Your task to perform on an android device: turn on priority inbox in the gmail app Image 0: 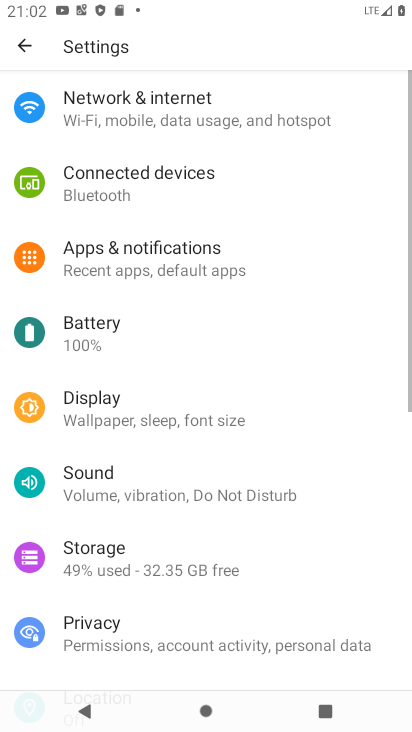
Step 0: press home button
Your task to perform on an android device: turn on priority inbox in the gmail app Image 1: 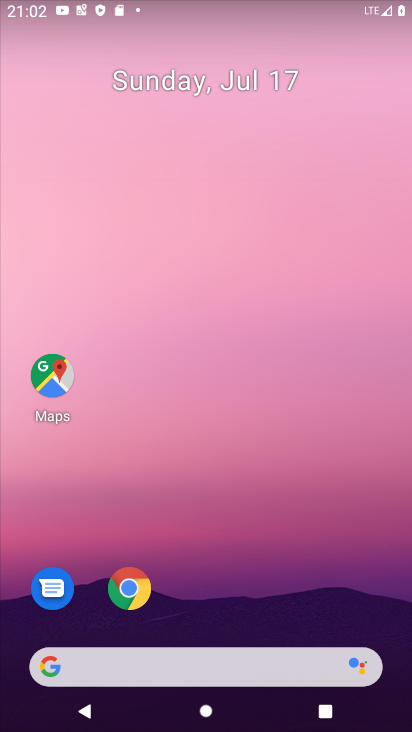
Step 1: drag from (279, 516) to (229, 18)
Your task to perform on an android device: turn on priority inbox in the gmail app Image 2: 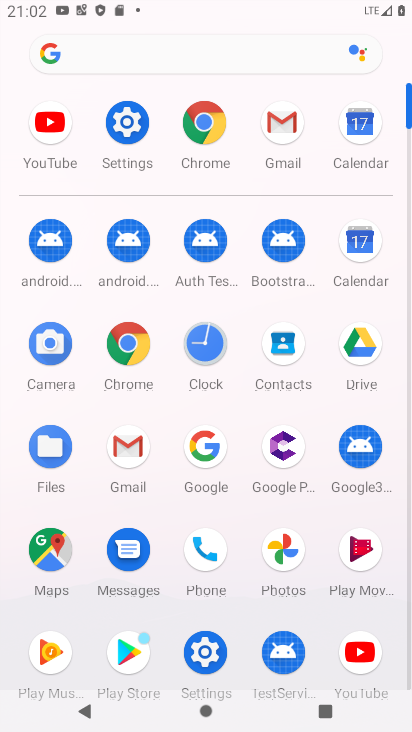
Step 2: click (274, 108)
Your task to perform on an android device: turn on priority inbox in the gmail app Image 3: 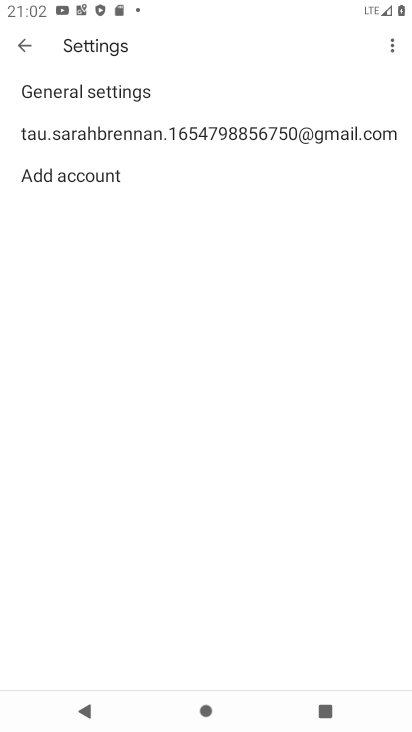
Step 3: click (19, 48)
Your task to perform on an android device: turn on priority inbox in the gmail app Image 4: 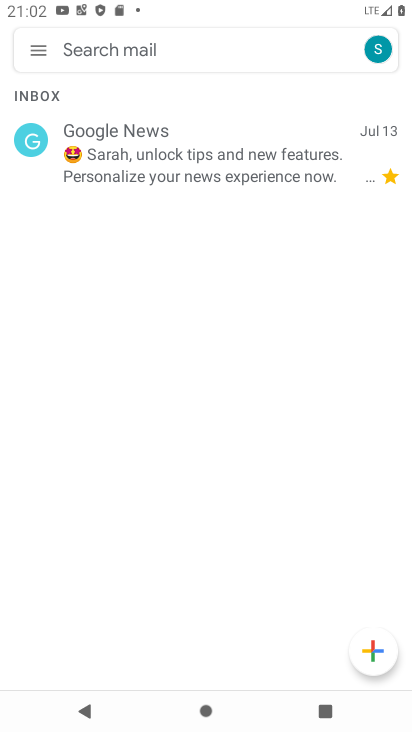
Step 4: click (40, 47)
Your task to perform on an android device: turn on priority inbox in the gmail app Image 5: 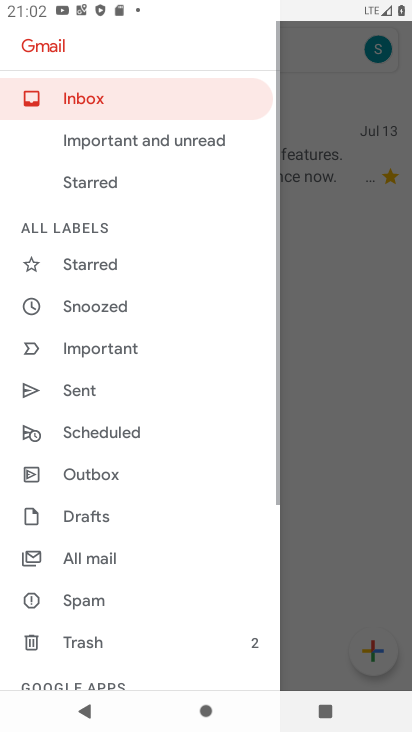
Step 5: drag from (213, 596) to (197, 128)
Your task to perform on an android device: turn on priority inbox in the gmail app Image 6: 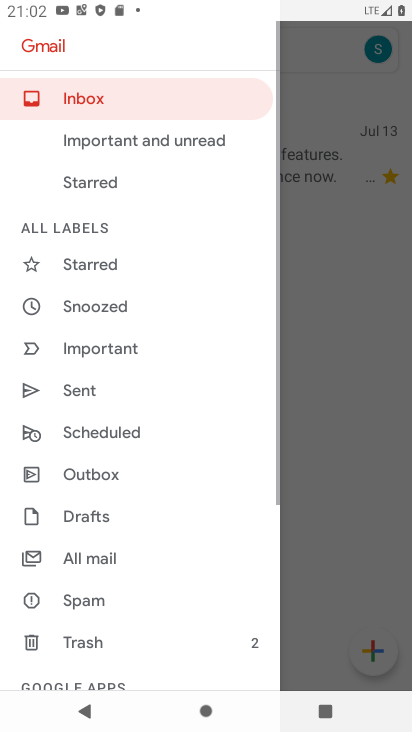
Step 6: drag from (106, 531) to (183, 9)
Your task to perform on an android device: turn on priority inbox in the gmail app Image 7: 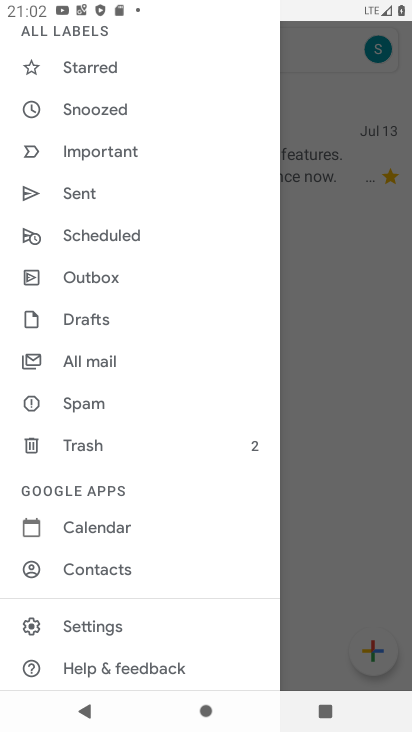
Step 7: click (83, 621)
Your task to perform on an android device: turn on priority inbox in the gmail app Image 8: 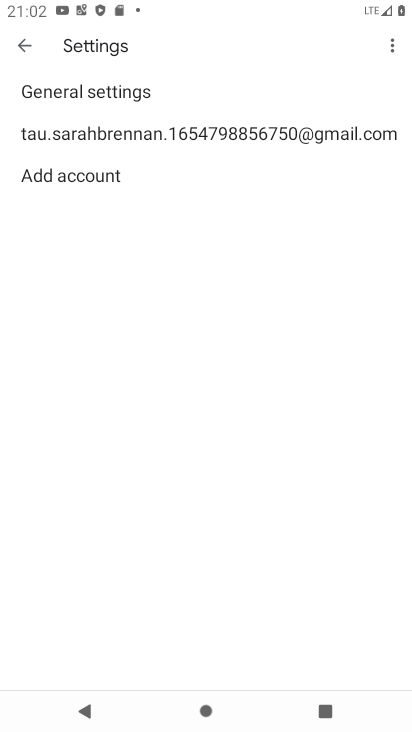
Step 8: click (116, 144)
Your task to perform on an android device: turn on priority inbox in the gmail app Image 9: 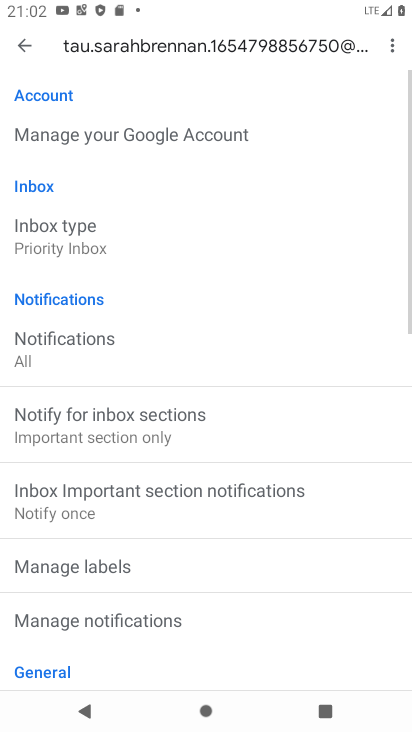
Step 9: click (94, 233)
Your task to perform on an android device: turn on priority inbox in the gmail app Image 10: 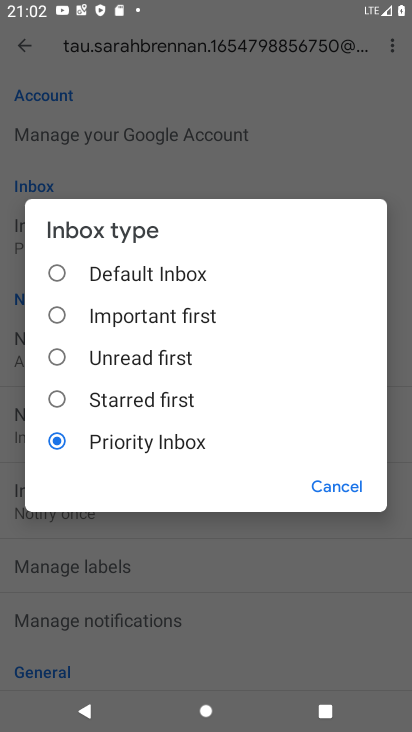
Step 10: click (79, 433)
Your task to perform on an android device: turn on priority inbox in the gmail app Image 11: 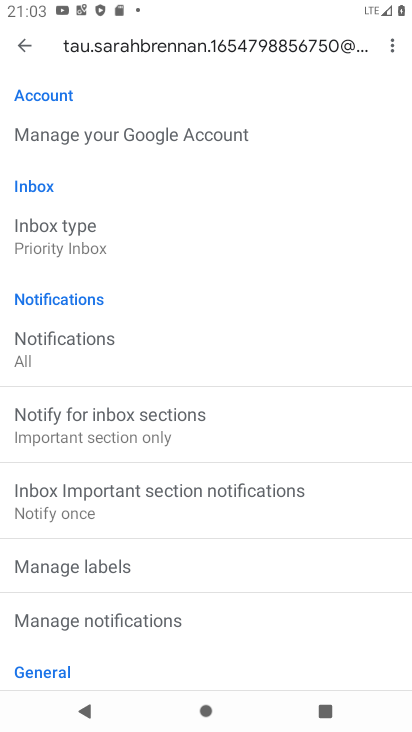
Step 11: task complete